Your task to perform on an android device: Open internet settings Image 0: 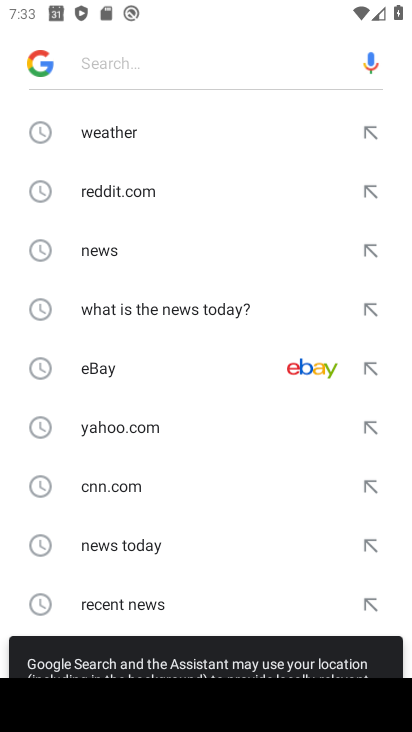
Step 0: press home button
Your task to perform on an android device: Open internet settings Image 1: 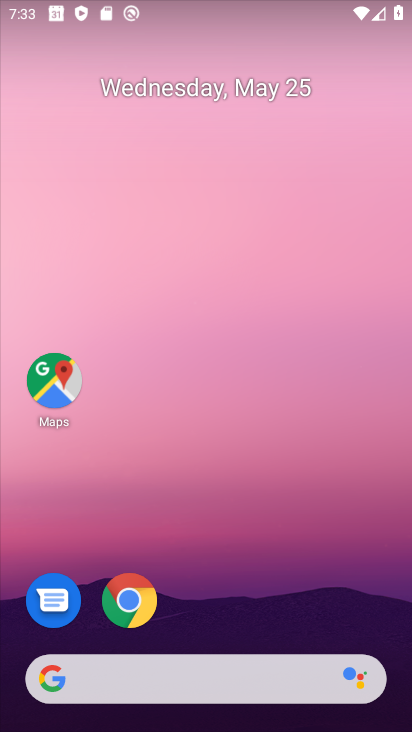
Step 1: drag from (310, 620) to (303, 251)
Your task to perform on an android device: Open internet settings Image 2: 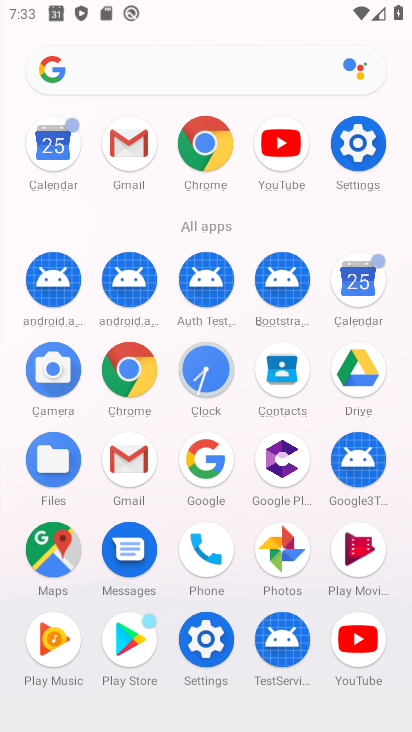
Step 2: click (200, 640)
Your task to perform on an android device: Open internet settings Image 3: 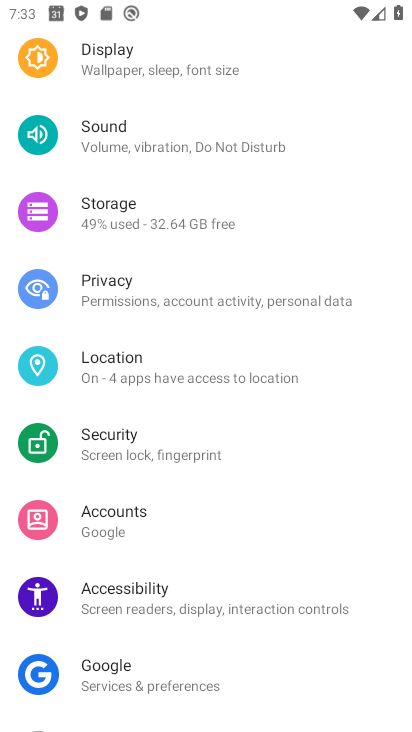
Step 3: drag from (200, 211) to (229, 566)
Your task to perform on an android device: Open internet settings Image 4: 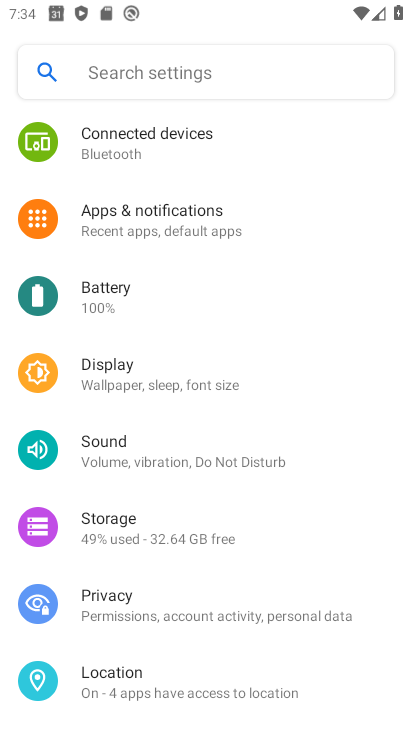
Step 4: drag from (236, 205) to (241, 525)
Your task to perform on an android device: Open internet settings Image 5: 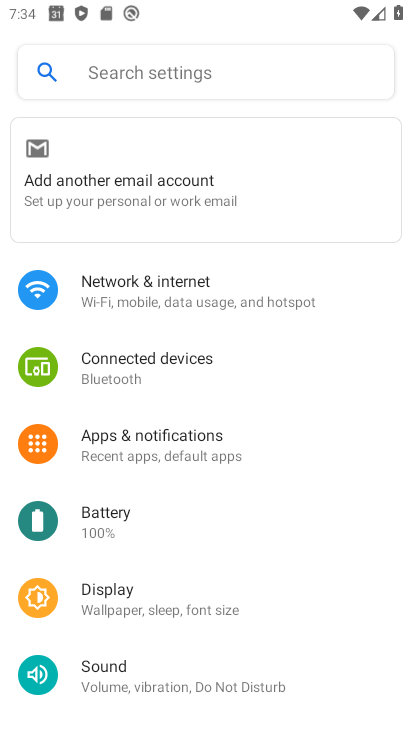
Step 5: click (216, 287)
Your task to perform on an android device: Open internet settings Image 6: 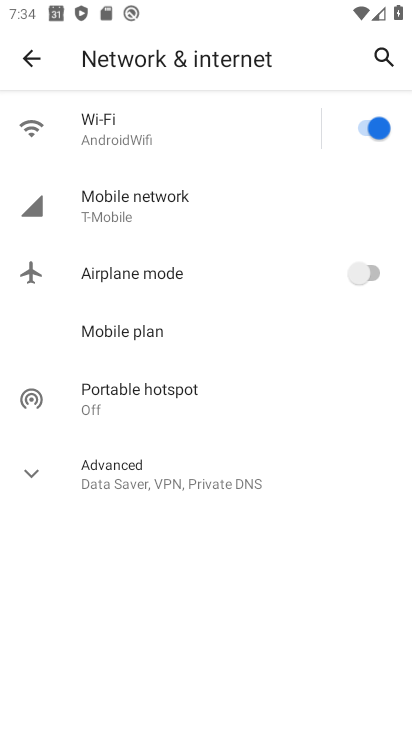
Step 6: task complete